Your task to perform on an android device: Check the news Image 0: 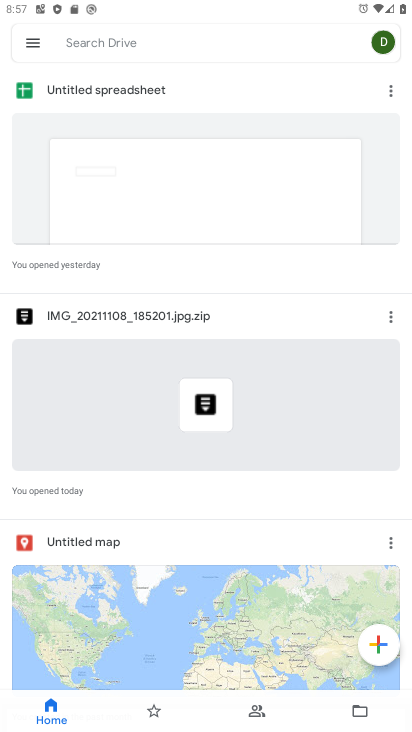
Step 0: press home button
Your task to perform on an android device: Check the news Image 1: 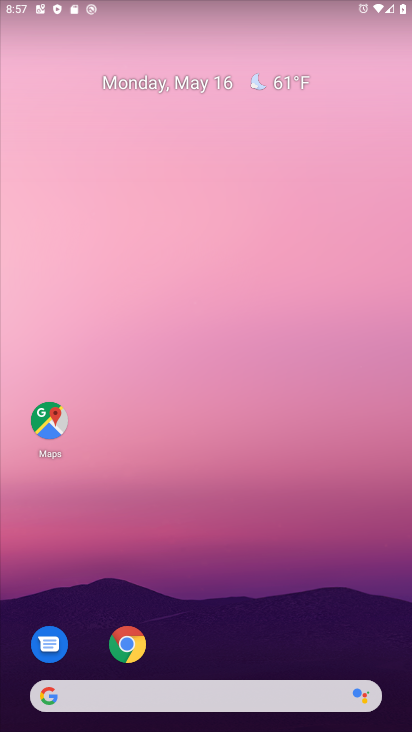
Step 1: drag from (172, 604) to (187, 107)
Your task to perform on an android device: Check the news Image 2: 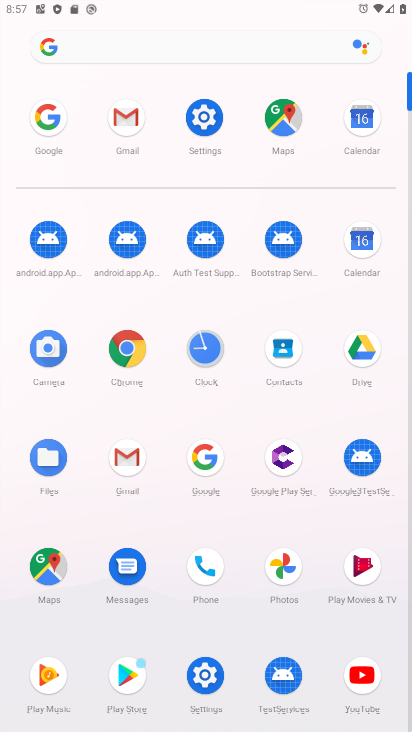
Step 2: click (202, 457)
Your task to perform on an android device: Check the news Image 3: 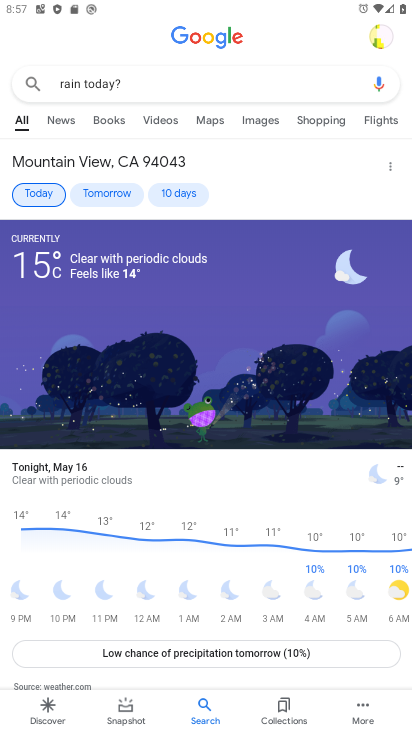
Step 3: click (144, 88)
Your task to perform on an android device: Check the news Image 4: 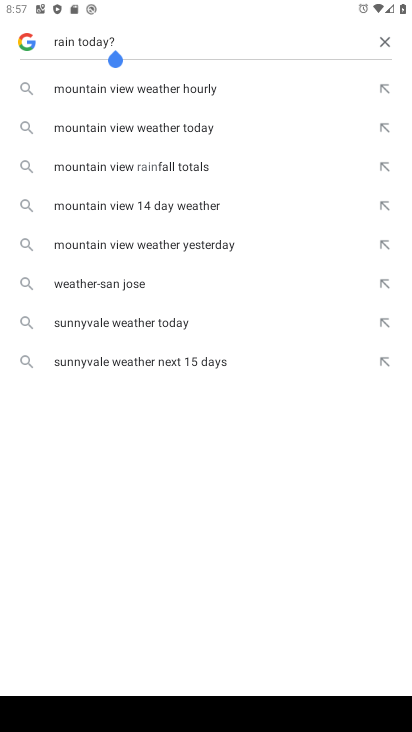
Step 4: click (382, 44)
Your task to perform on an android device: Check the news Image 5: 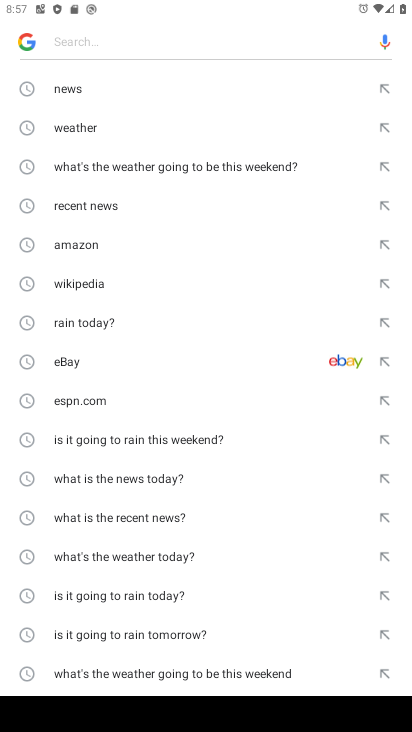
Step 5: click (100, 91)
Your task to perform on an android device: Check the news Image 6: 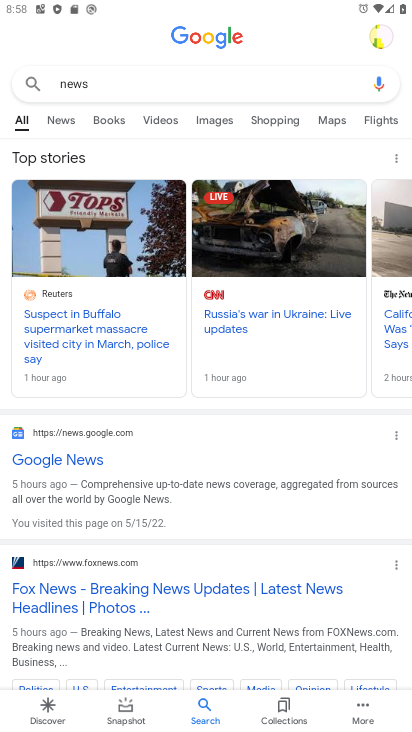
Step 6: task complete